Your task to perform on an android device: Open the map Image 0: 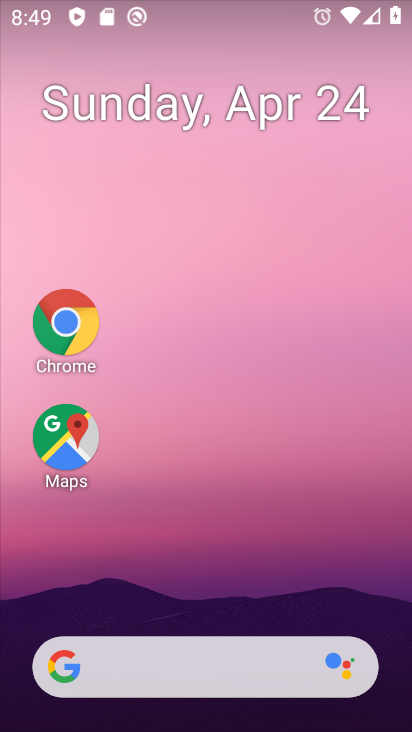
Step 0: drag from (204, 536) to (119, 4)
Your task to perform on an android device: Open the map Image 1: 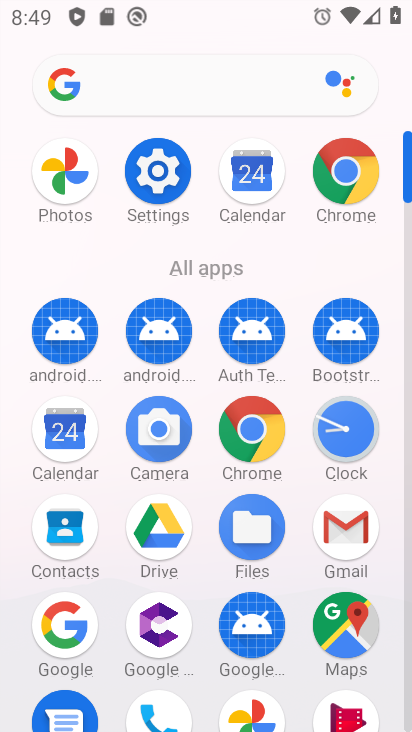
Step 1: click (335, 620)
Your task to perform on an android device: Open the map Image 2: 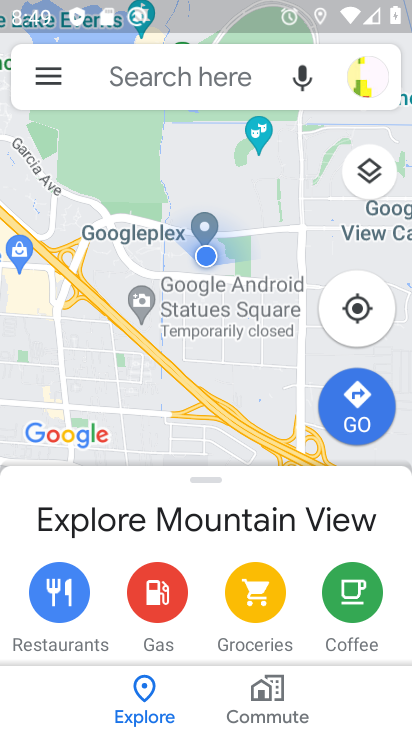
Step 2: task complete